Your task to perform on an android device: clear history in the chrome app Image 0: 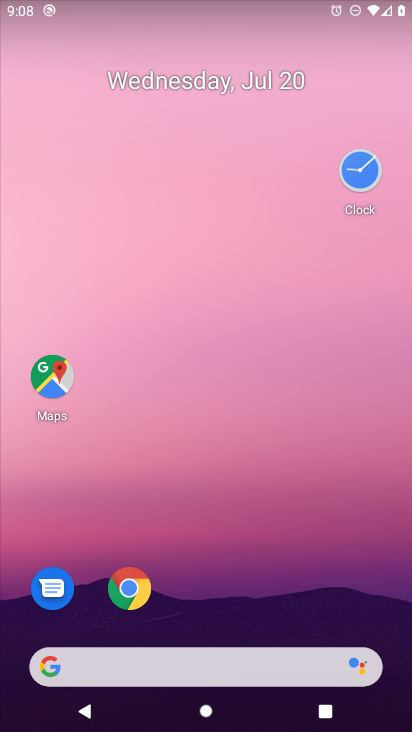
Step 0: click (111, 589)
Your task to perform on an android device: clear history in the chrome app Image 1: 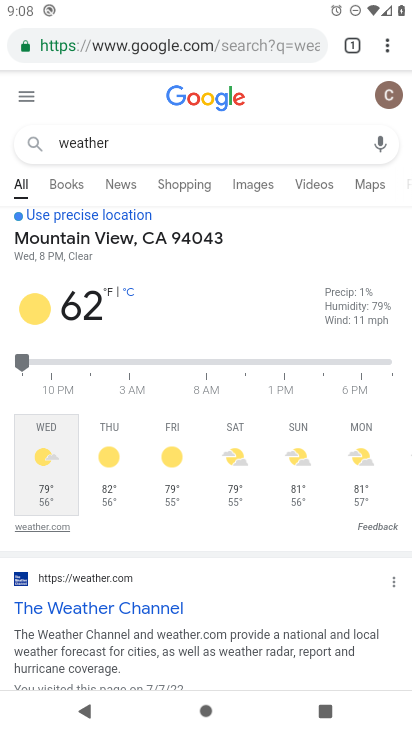
Step 1: click (389, 49)
Your task to perform on an android device: clear history in the chrome app Image 2: 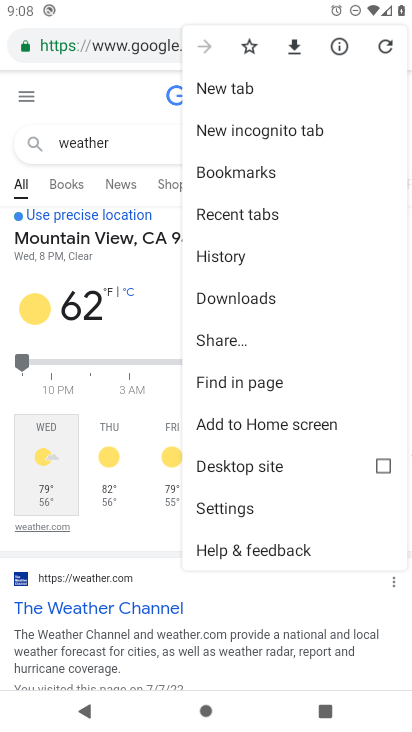
Step 2: click (238, 257)
Your task to perform on an android device: clear history in the chrome app Image 3: 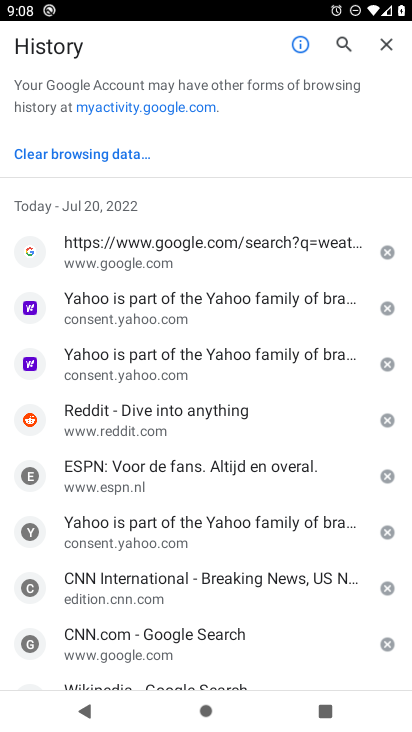
Step 3: click (98, 159)
Your task to perform on an android device: clear history in the chrome app Image 4: 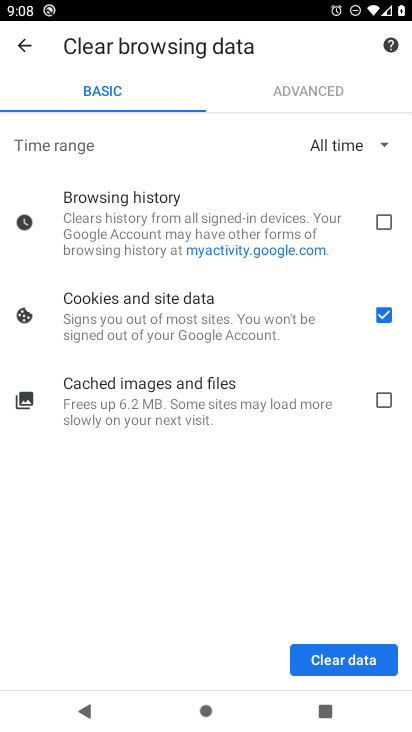
Step 4: click (387, 306)
Your task to perform on an android device: clear history in the chrome app Image 5: 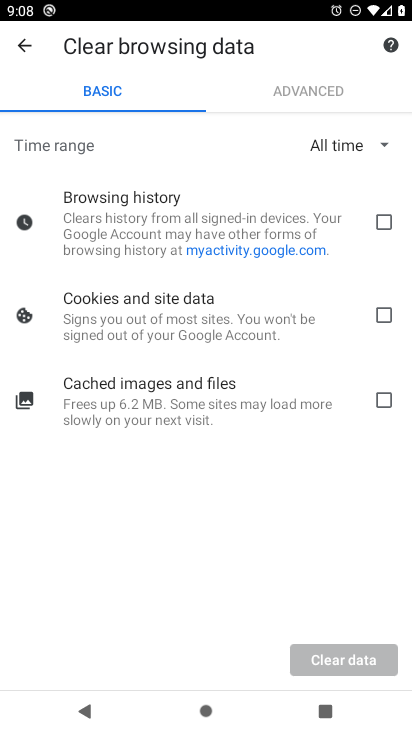
Step 5: click (382, 224)
Your task to perform on an android device: clear history in the chrome app Image 6: 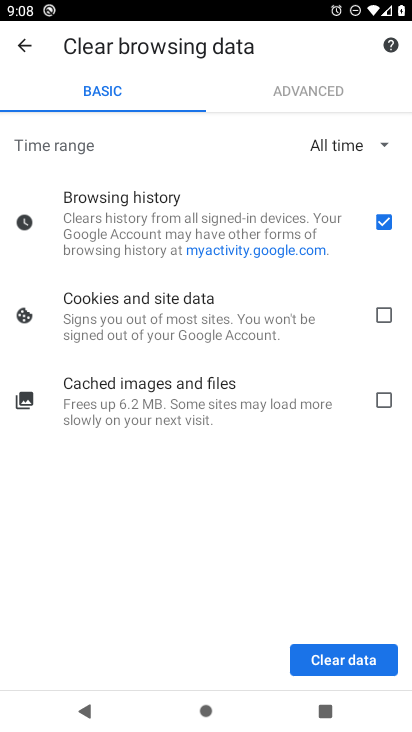
Step 6: click (332, 662)
Your task to perform on an android device: clear history in the chrome app Image 7: 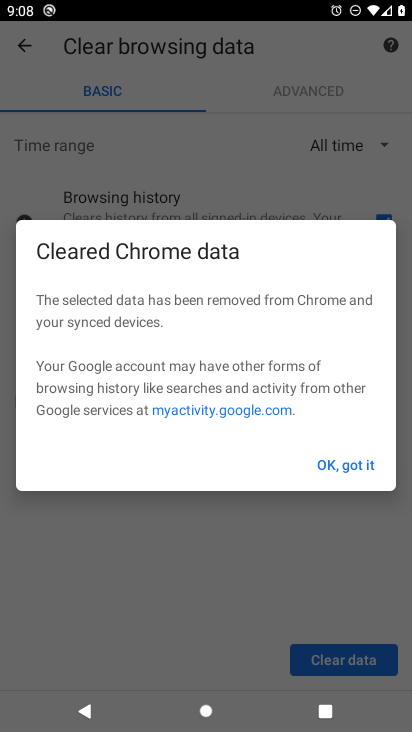
Step 7: click (326, 461)
Your task to perform on an android device: clear history in the chrome app Image 8: 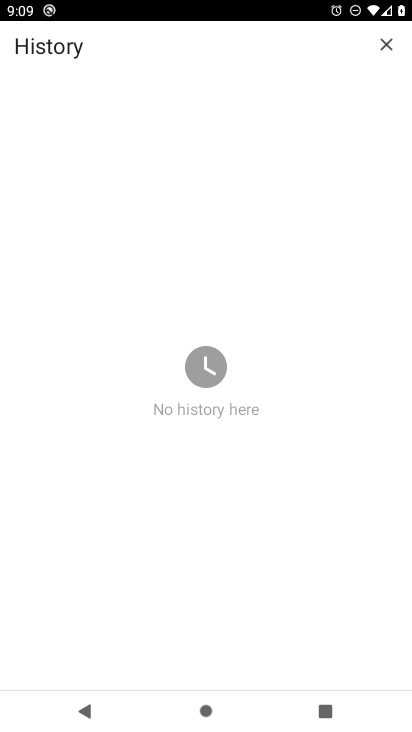
Step 8: task complete